Your task to perform on an android device: Open calendar and show me the third week of next month Image 0: 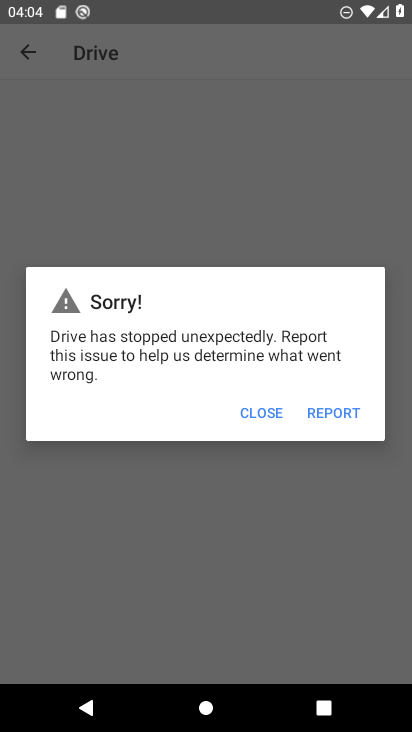
Step 0: press home button
Your task to perform on an android device: Open calendar and show me the third week of next month Image 1: 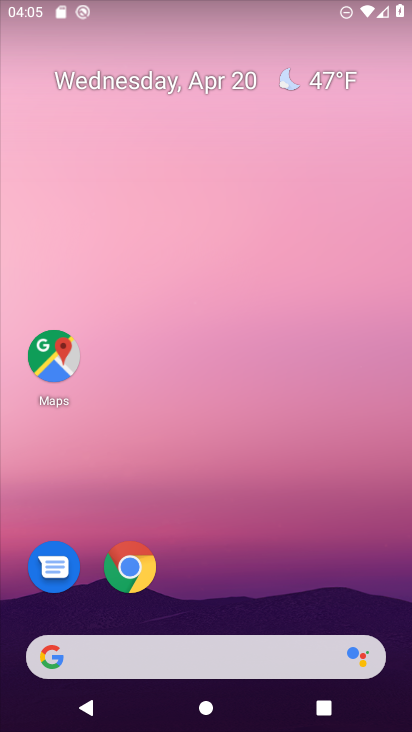
Step 1: click (187, 55)
Your task to perform on an android device: Open calendar and show me the third week of next month Image 2: 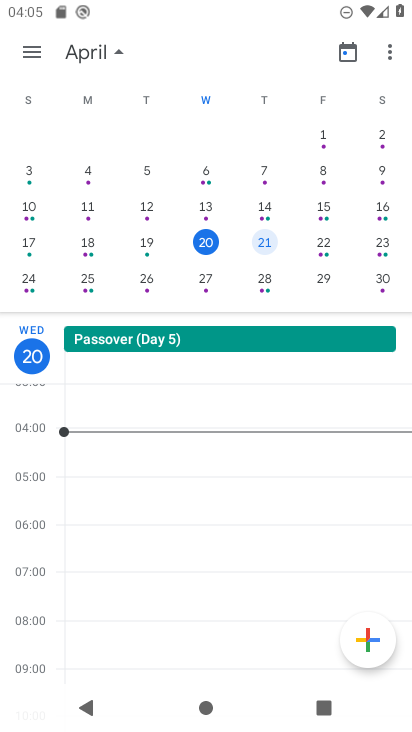
Step 2: drag from (369, 199) to (18, 183)
Your task to perform on an android device: Open calendar and show me the third week of next month Image 3: 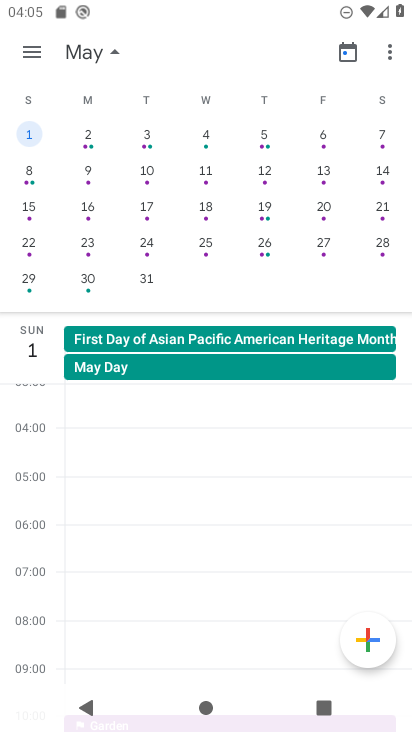
Step 3: click (210, 203)
Your task to perform on an android device: Open calendar and show me the third week of next month Image 4: 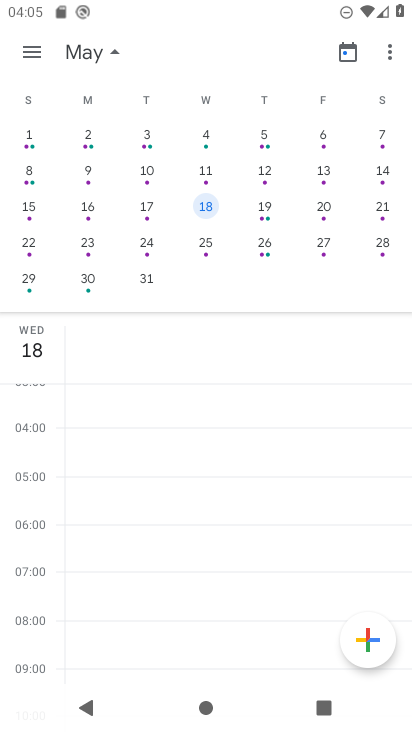
Step 4: task complete